Your task to perform on an android device: change notification settings in the gmail app Image 0: 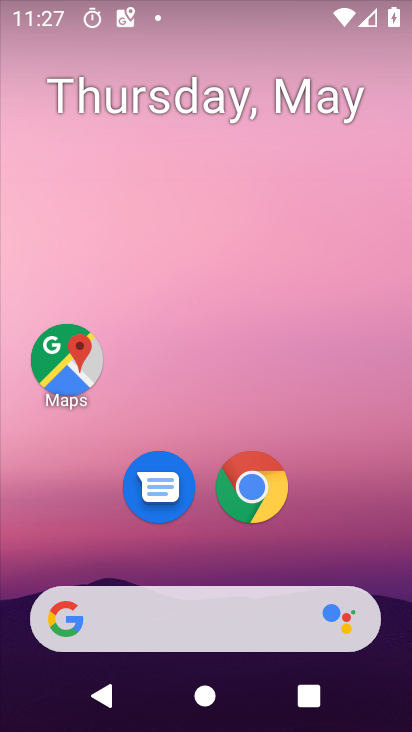
Step 0: drag from (311, 550) to (254, 169)
Your task to perform on an android device: change notification settings in the gmail app Image 1: 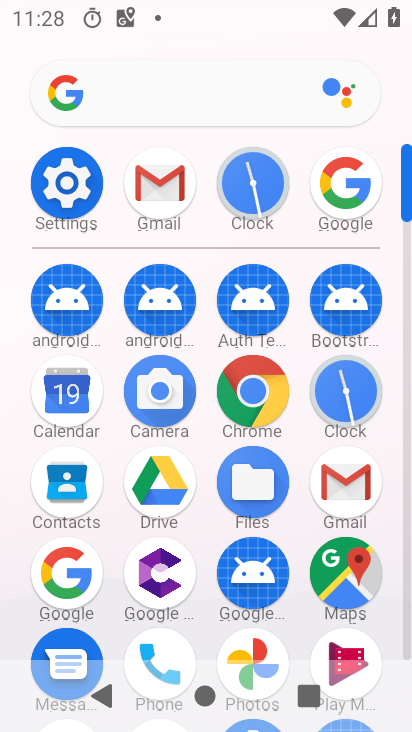
Step 1: click (75, 198)
Your task to perform on an android device: change notification settings in the gmail app Image 2: 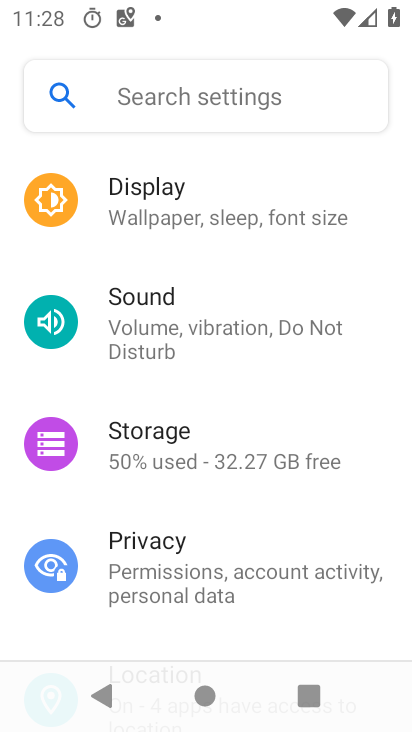
Step 2: press home button
Your task to perform on an android device: change notification settings in the gmail app Image 3: 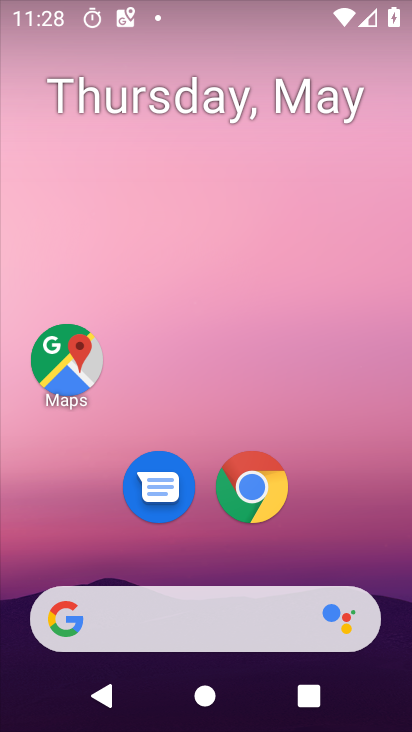
Step 3: drag from (321, 545) to (345, 43)
Your task to perform on an android device: change notification settings in the gmail app Image 4: 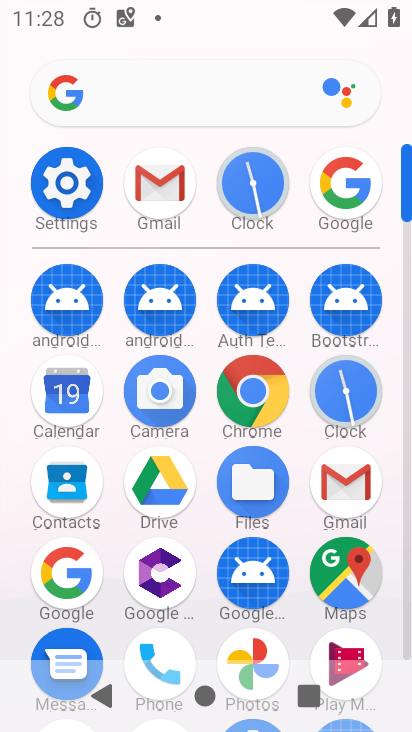
Step 4: click (156, 196)
Your task to perform on an android device: change notification settings in the gmail app Image 5: 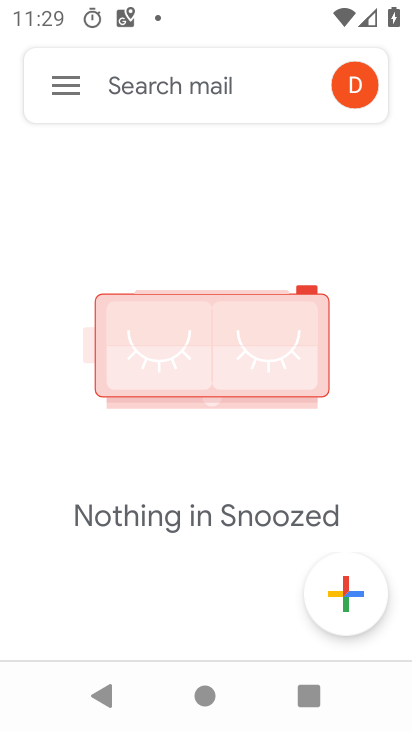
Step 5: click (76, 87)
Your task to perform on an android device: change notification settings in the gmail app Image 6: 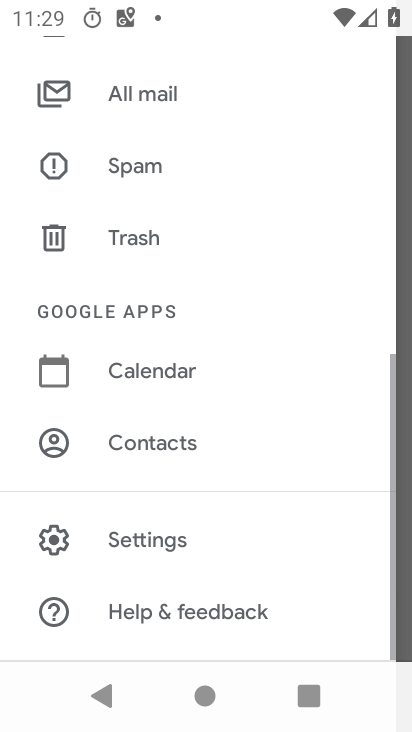
Step 6: click (195, 548)
Your task to perform on an android device: change notification settings in the gmail app Image 7: 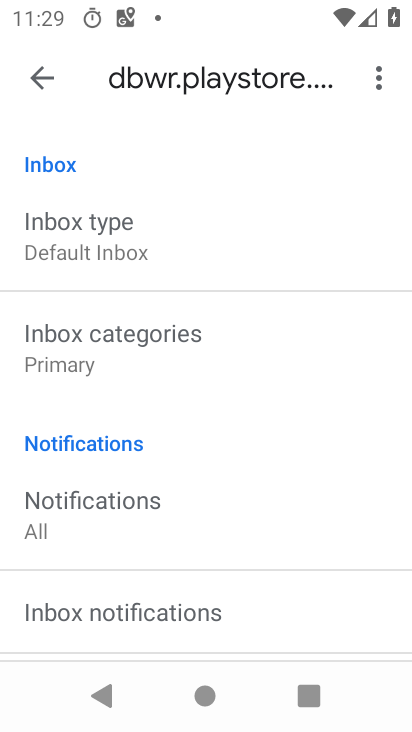
Step 7: drag from (162, 572) to (199, 239)
Your task to perform on an android device: change notification settings in the gmail app Image 8: 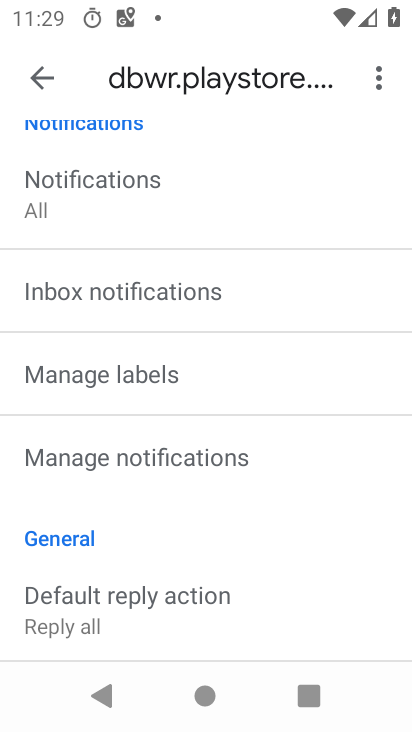
Step 8: click (170, 464)
Your task to perform on an android device: change notification settings in the gmail app Image 9: 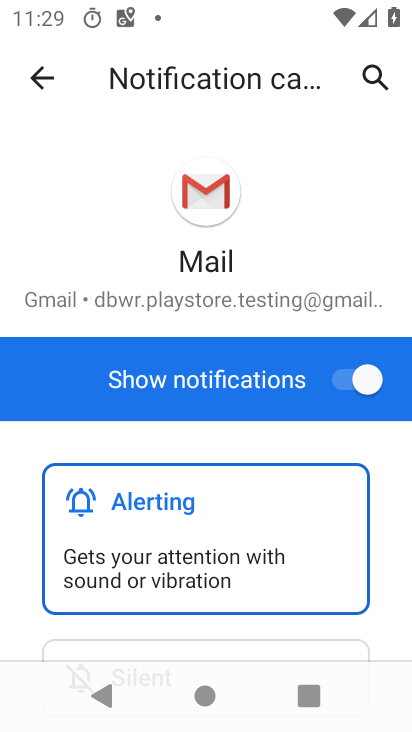
Step 9: drag from (335, 571) to (370, 410)
Your task to perform on an android device: change notification settings in the gmail app Image 10: 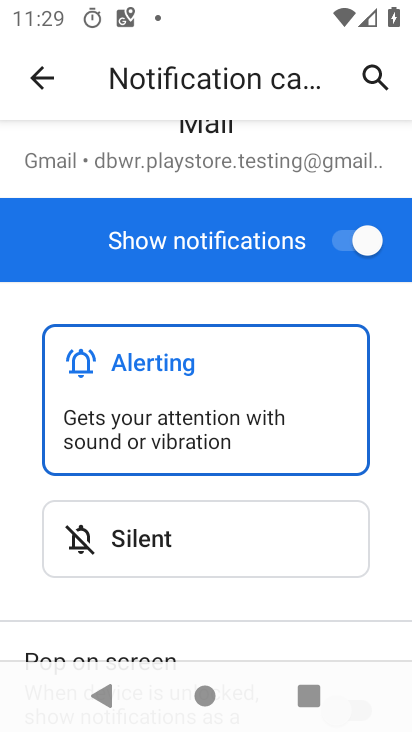
Step 10: click (342, 236)
Your task to perform on an android device: change notification settings in the gmail app Image 11: 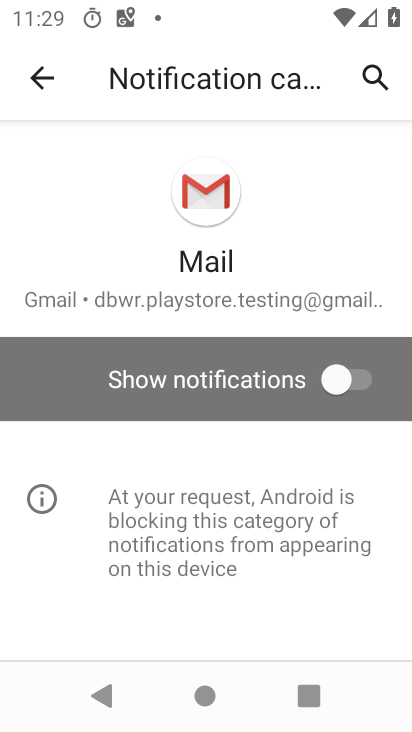
Step 11: task complete